Your task to perform on an android device: turn off notifications settings in the gmail app Image 0: 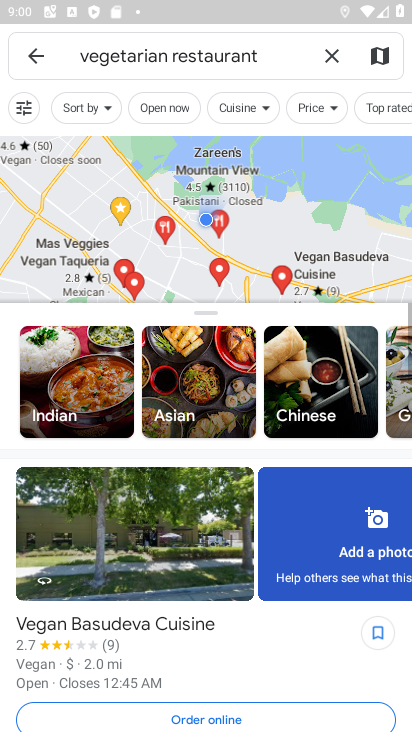
Step 0: press home button
Your task to perform on an android device: turn off notifications settings in the gmail app Image 1: 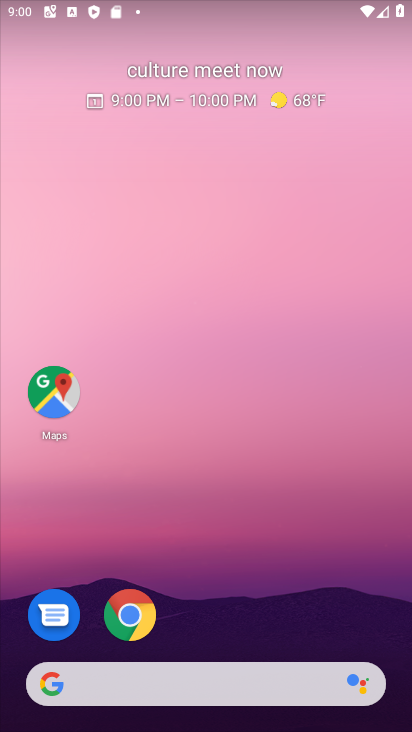
Step 1: drag from (372, 576) to (330, 83)
Your task to perform on an android device: turn off notifications settings in the gmail app Image 2: 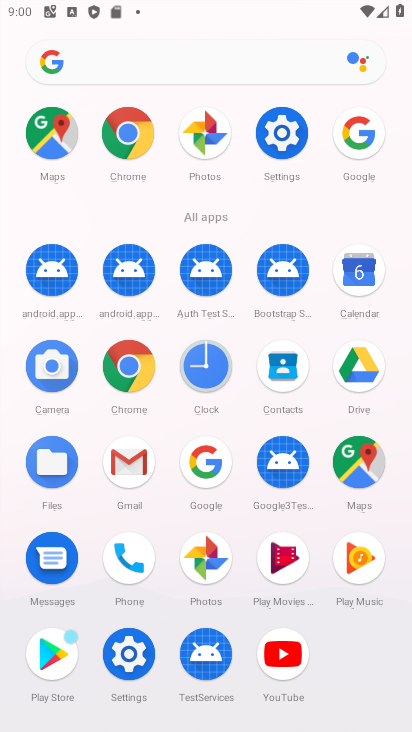
Step 2: click (140, 460)
Your task to perform on an android device: turn off notifications settings in the gmail app Image 3: 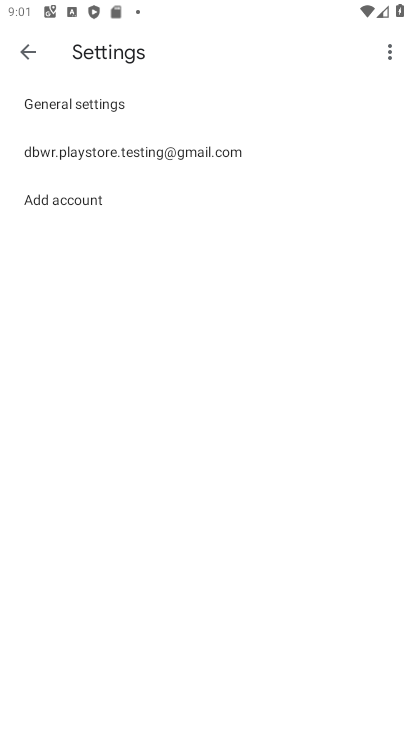
Step 3: click (39, 103)
Your task to perform on an android device: turn off notifications settings in the gmail app Image 4: 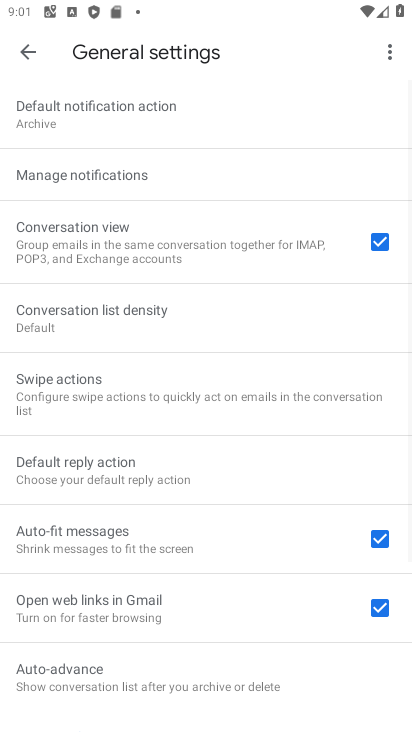
Step 4: click (78, 173)
Your task to perform on an android device: turn off notifications settings in the gmail app Image 5: 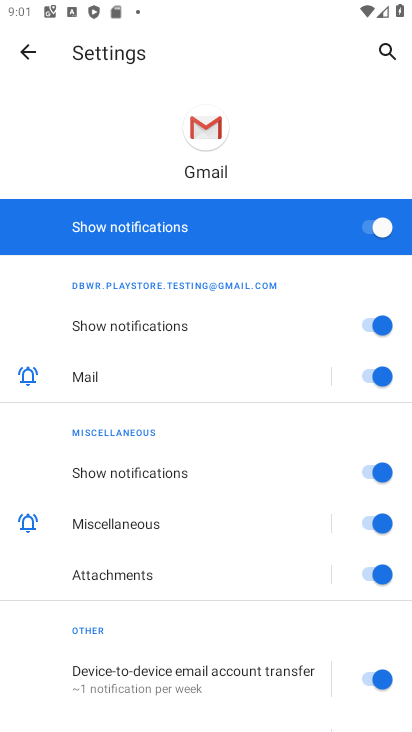
Step 5: click (376, 227)
Your task to perform on an android device: turn off notifications settings in the gmail app Image 6: 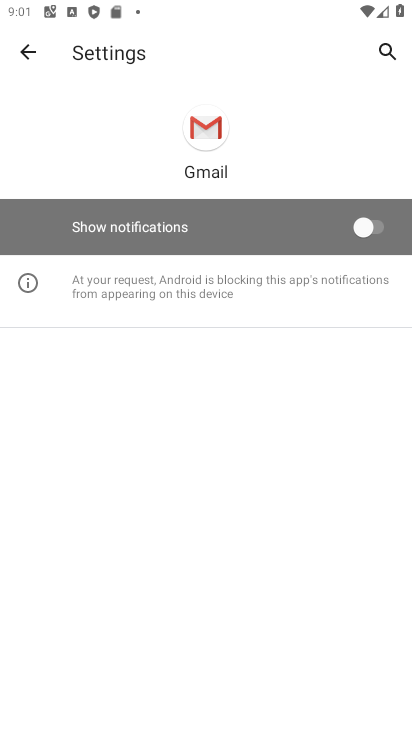
Step 6: task complete